Your task to perform on an android device: Open calendar and show me the fourth week of next month Image 0: 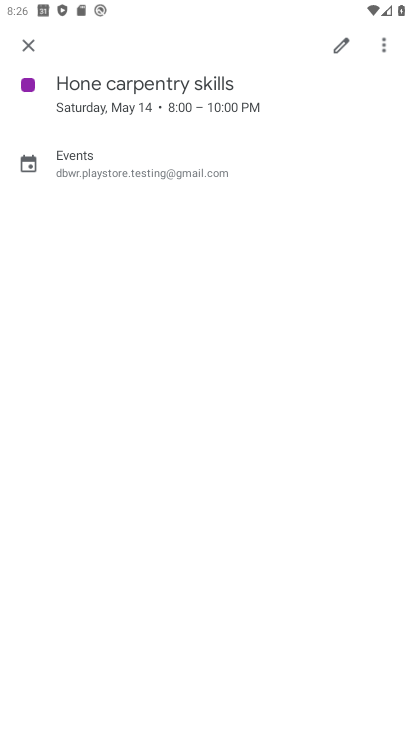
Step 0: press home button
Your task to perform on an android device: Open calendar and show me the fourth week of next month Image 1: 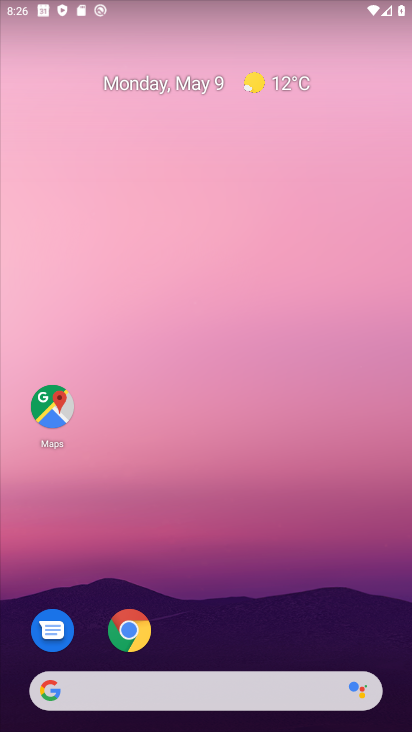
Step 1: drag from (171, 682) to (248, 324)
Your task to perform on an android device: Open calendar and show me the fourth week of next month Image 2: 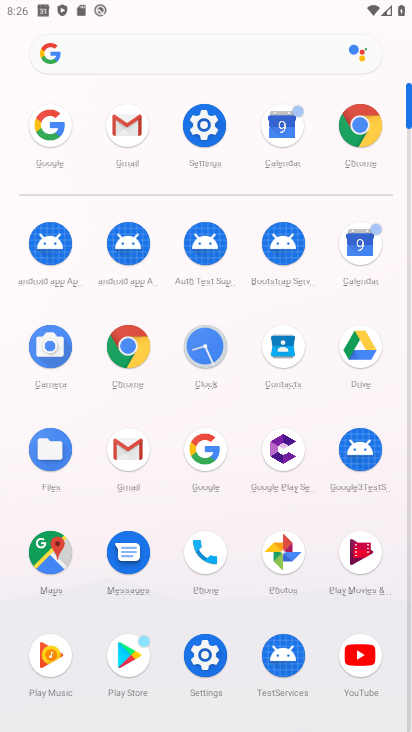
Step 2: click (369, 238)
Your task to perform on an android device: Open calendar and show me the fourth week of next month Image 3: 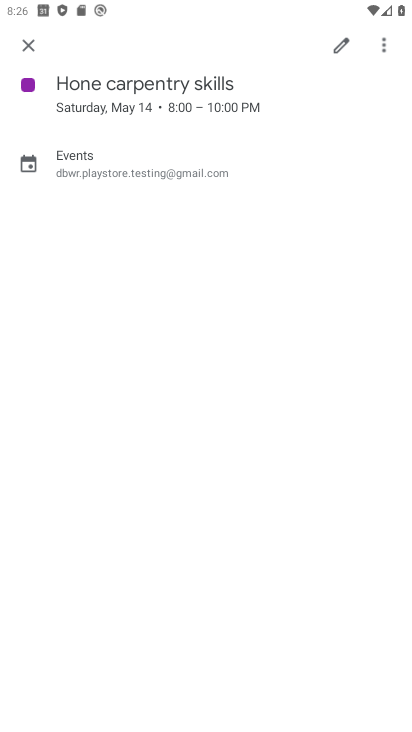
Step 3: click (29, 48)
Your task to perform on an android device: Open calendar and show me the fourth week of next month Image 4: 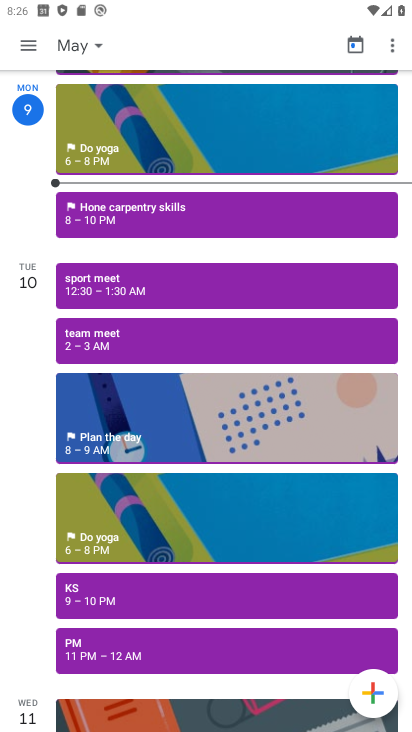
Step 4: click (70, 54)
Your task to perform on an android device: Open calendar and show me the fourth week of next month Image 5: 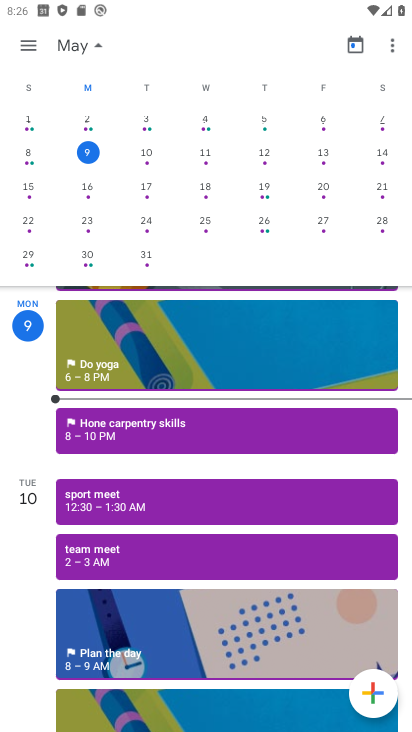
Step 5: drag from (361, 228) to (4, 212)
Your task to perform on an android device: Open calendar and show me the fourth week of next month Image 6: 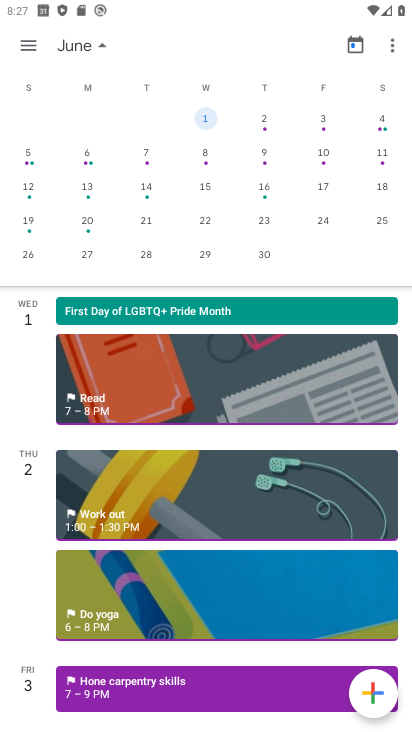
Step 6: click (33, 220)
Your task to perform on an android device: Open calendar and show me the fourth week of next month Image 7: 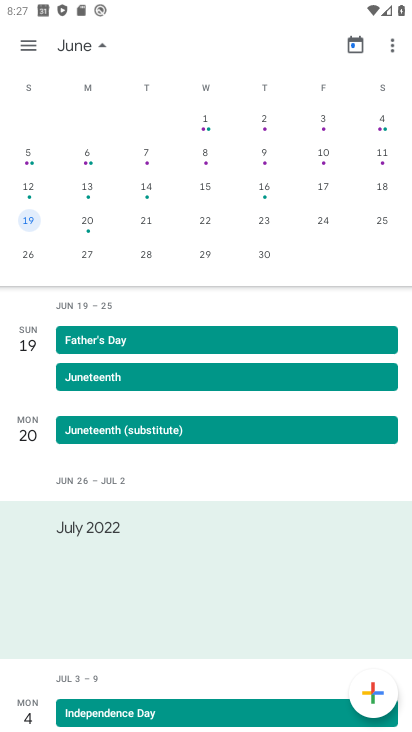
Step 7: task complete